Your task to perform on an android device: Go to sound settings Image 0: 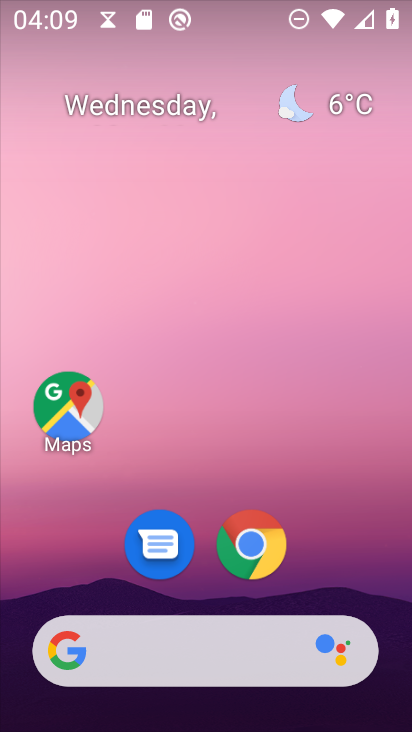
Step 0: drag from (340, 559) to (335, 44)
Your task to perform on an android device: Go to sound settings Image 1: 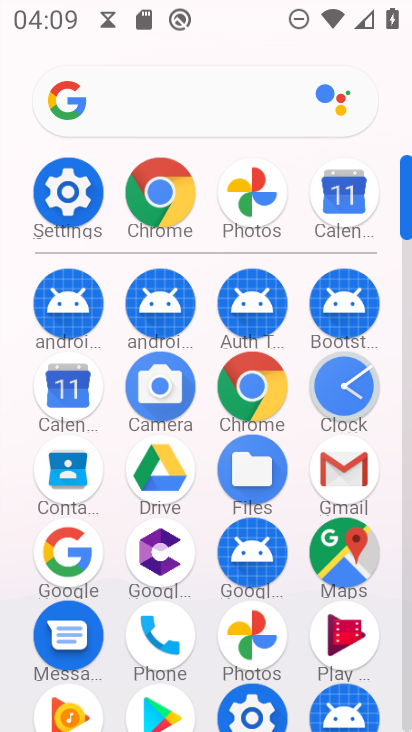
Step 1: click (61, 207)
Your task to perform on an android device: Go to sound settings Image 2: 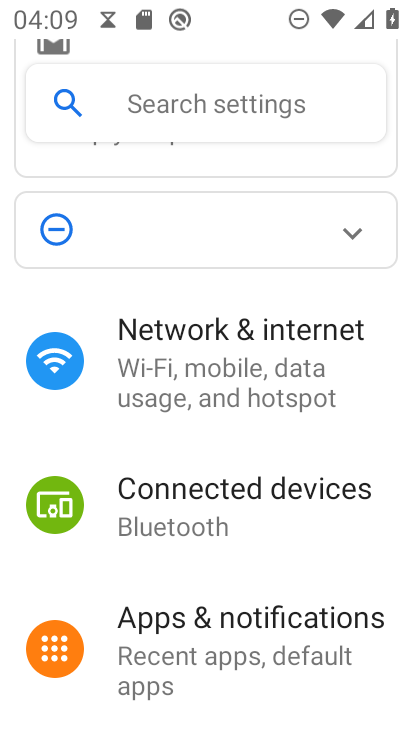
Step 2: drag from (226, 673) to (231, 248)
Your task to perform on an android device: Go to sound settings Image 3: 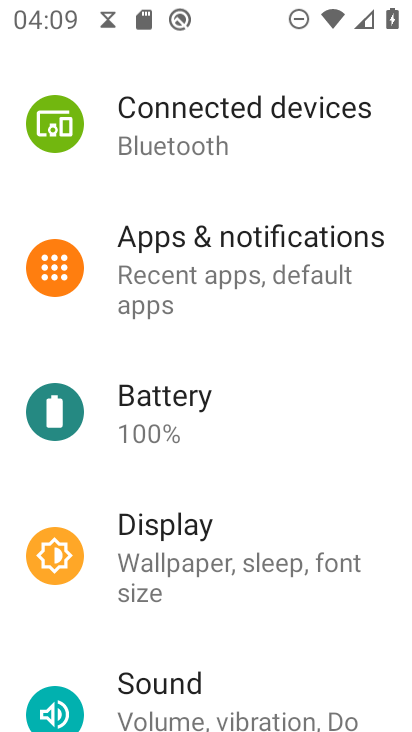
Step 3: drag from (153, 597) to (186, 242)
Your task to perform on an android device: Go to sound settings Image 4: 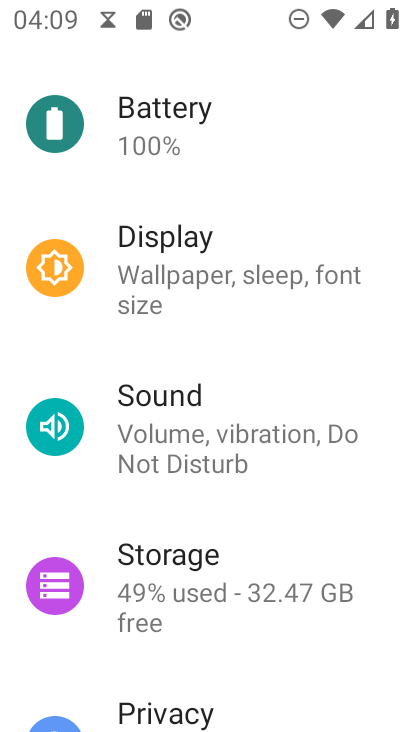
Step 4: click (179, 452)
Your task to perform on an android device: Go to sound settings Image 5: 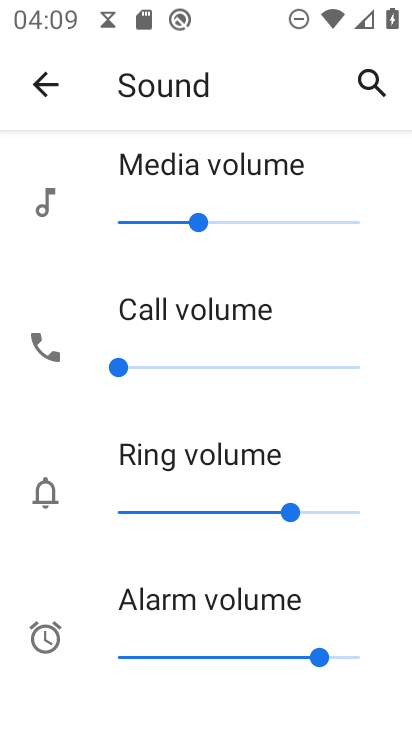
Step 5: task complete